Your task to perform on an android device: empty trash in google photos Image 0: 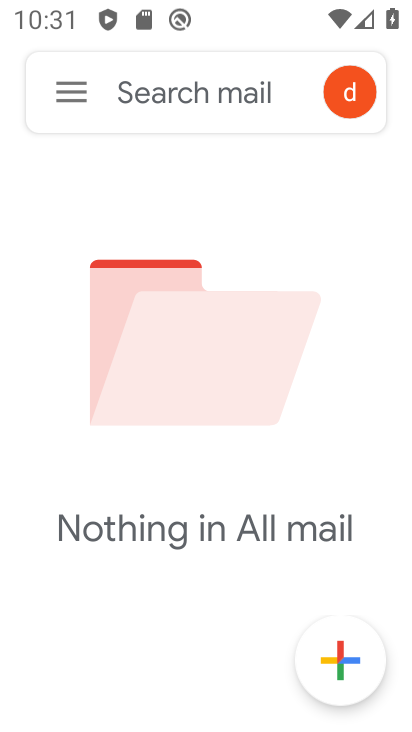
Step 0: press home button
Your task to perform on an android device: empty trash in google photos Image 1: 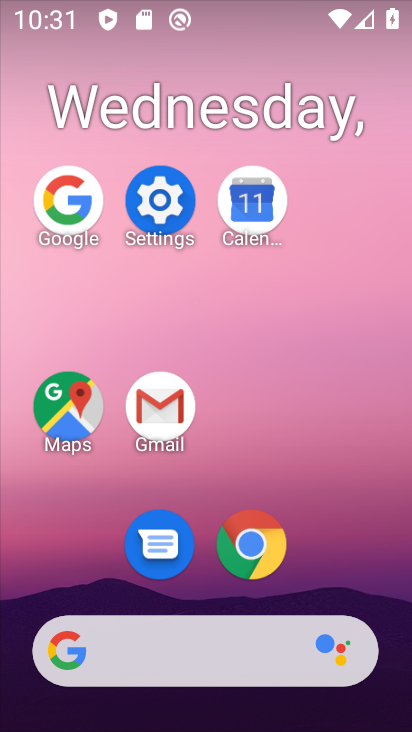
Step 1: drag from (330, 574) to (348, 43)
Your task to perform on an android device: empty trash in google photos Image 2: 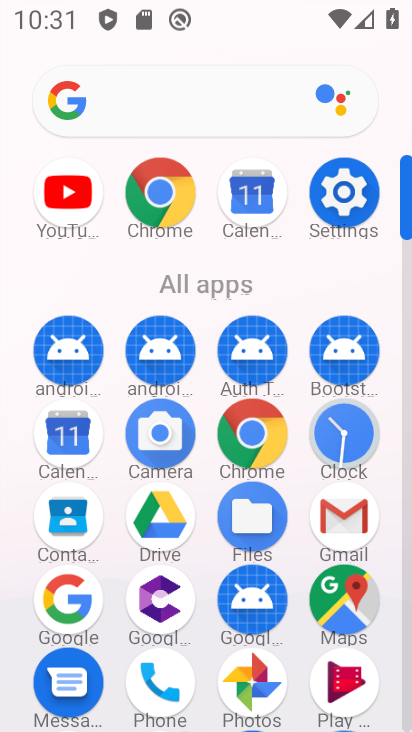
Step 2: drag from (246, 674) to (110, 248)
Your task to perform on an android device: empty trash in google photos Image 3: 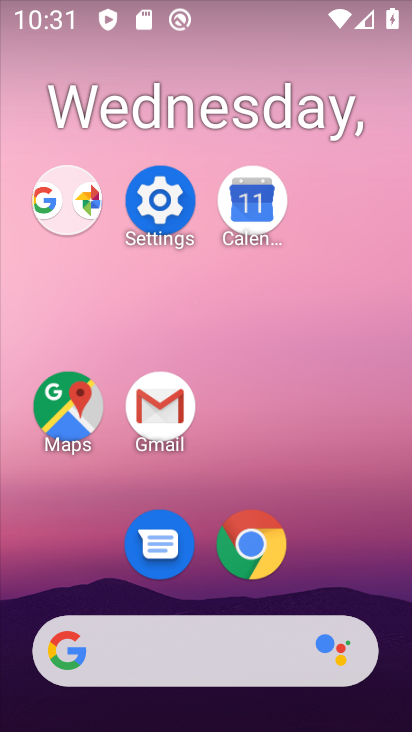
Step 3: click (66, 184)
Your task to perform on an android device: empty trash in google photos Image 4: 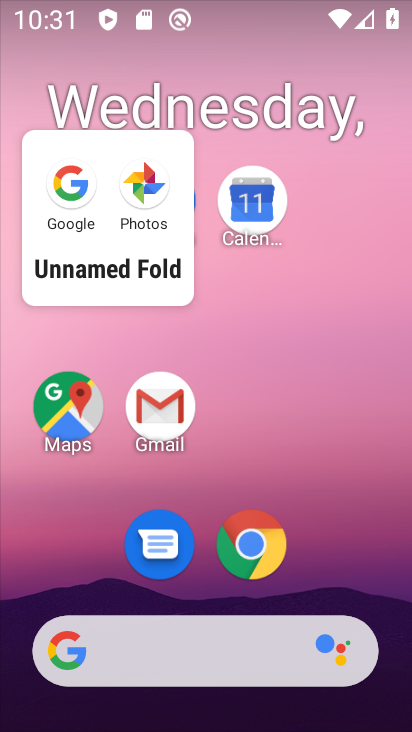
Step 4: drag from (141, 185) to (263, 311)
Your task to perform on an android device: empty trash in google photos Image 5: 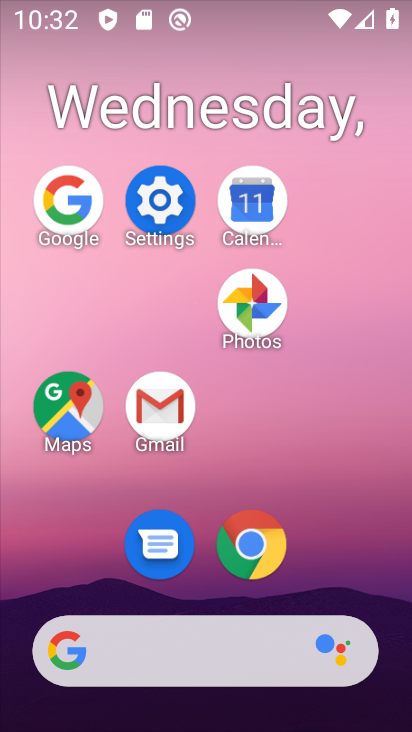
Step 5: click (258, 312)
Your task to perform on an android device: empty trash in google photos Image 6: 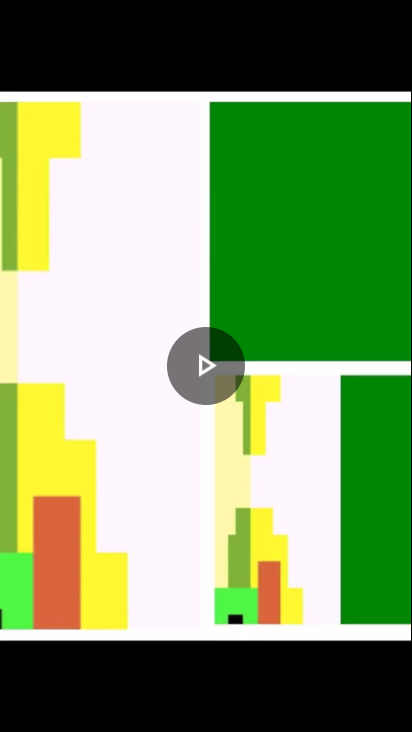
Step 6: press back button
Your task to perform on an android device: empty trash in google photos Image 7: 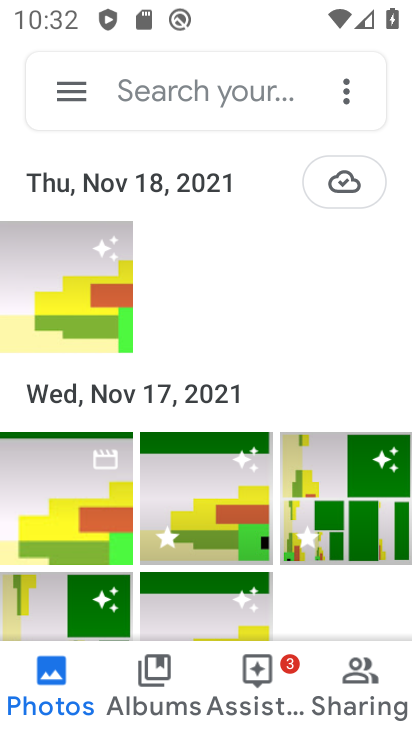
Step 7: click (57, 93)
Your task to perform on an android device: empty trash in google photos Image 8: 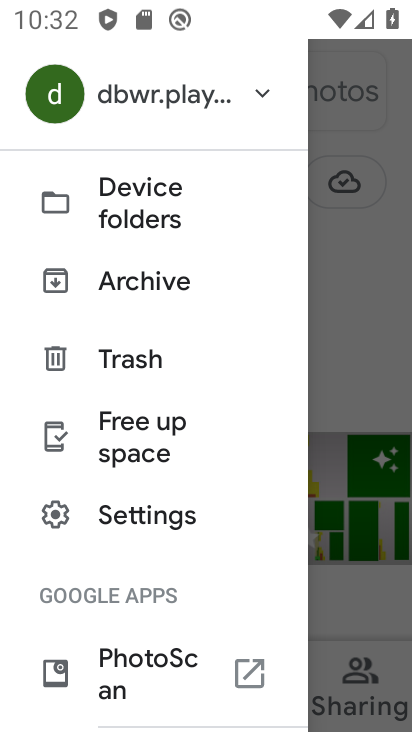
Step 8: click (129, 359)
Your task to perform on an android device: empty trash in google photos Image 9: 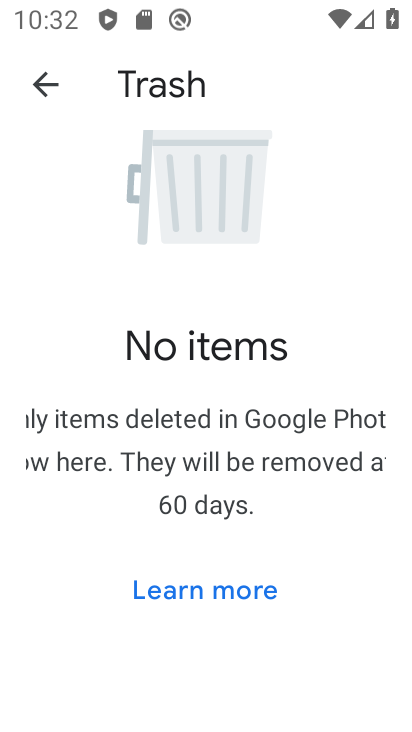
Step 9: press home button
Your task to perform on an android device: empty trash in google photos Image 10: 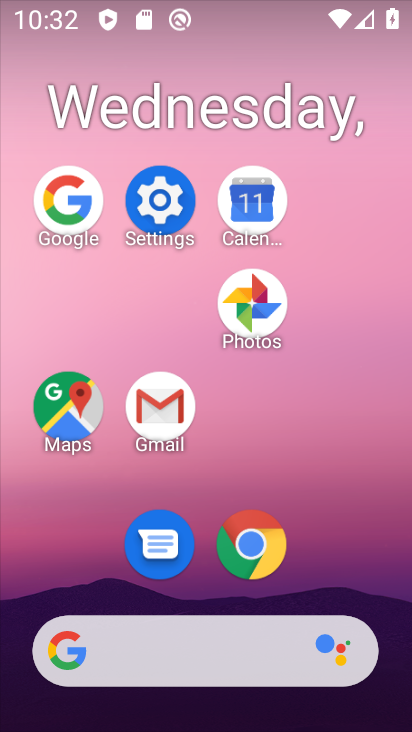
Step 10: click (227, 288)
Your task to perform on an android device: empty trash in google photos Image 11: 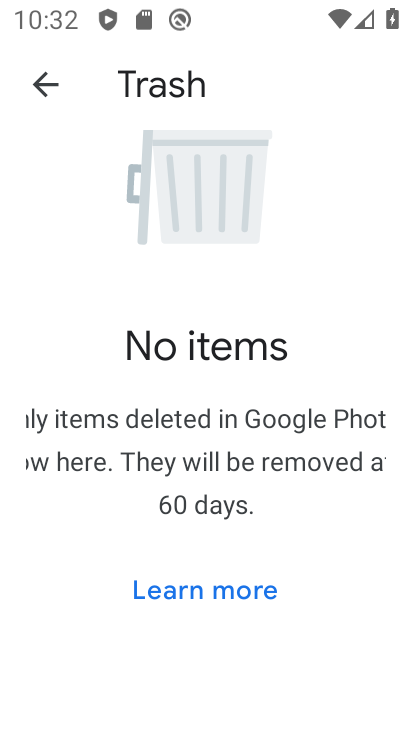
Step 11: task complete